Your task to perform on an android device: search for starred emails in the gmail app Image 0: 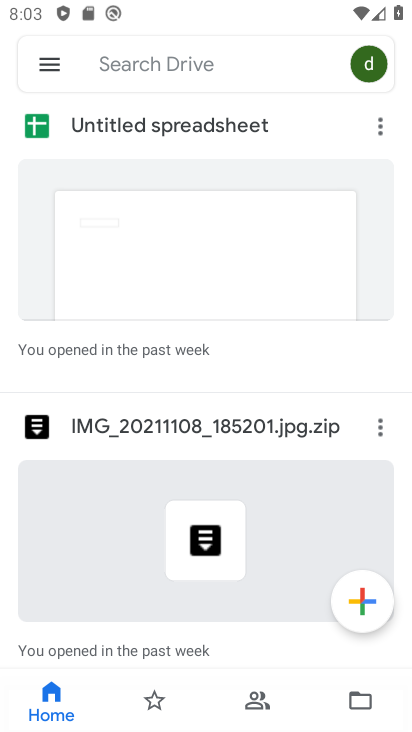
Step 0: press home button
Your task to perform on an android device: search for starred emails in the gmail app Image 1: 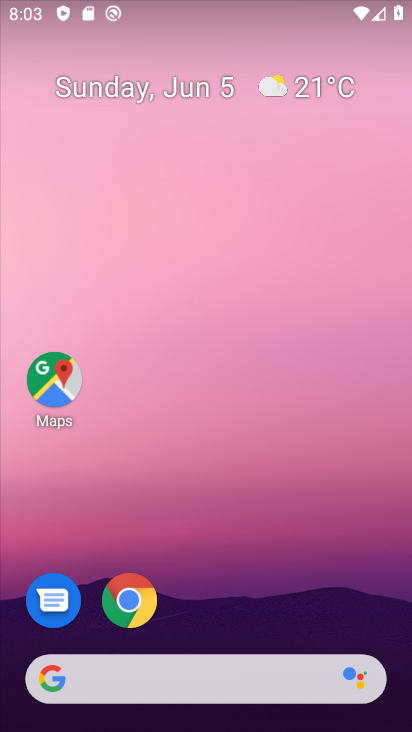
Step 1: drag from (265, 594) to (279, 0)
Your task to perform on an android device: search for starred emails in the gmail app Image 2: 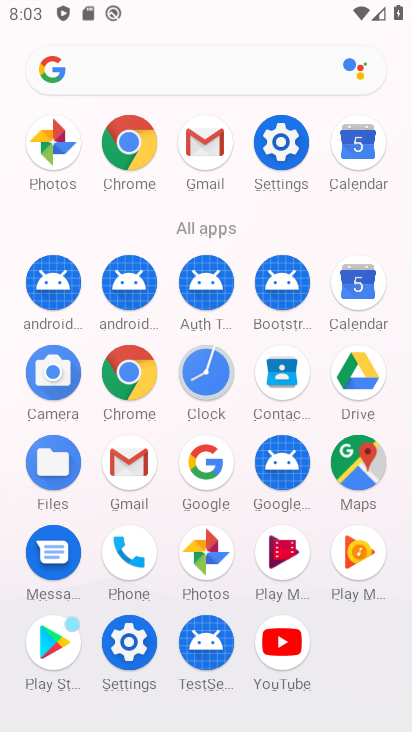
Step 2: click (130, 467)
Your task to perform on an android device: search for starred emails in the gmail app Image 3: 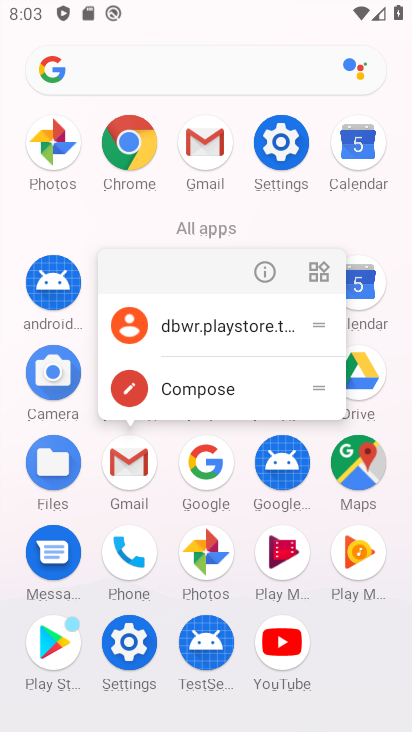
Step 3: click (125, 461)
Your task to perform on an android device: search for starred emails in the gmail app Image 4: 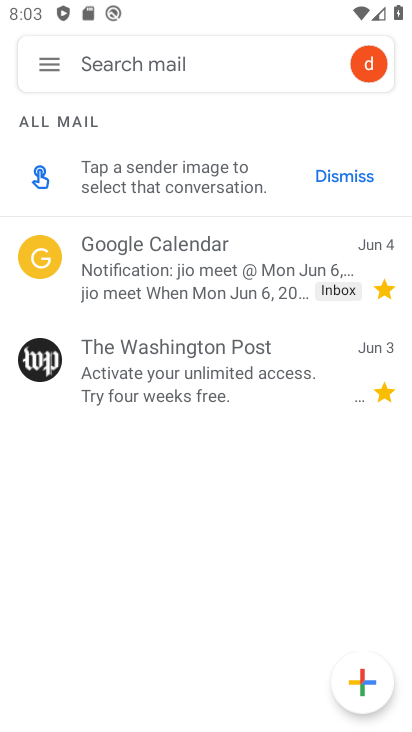
Step 4: click (47, 57)
Your task to perform on an android device: search for starred emails in the gmail app Image 5: 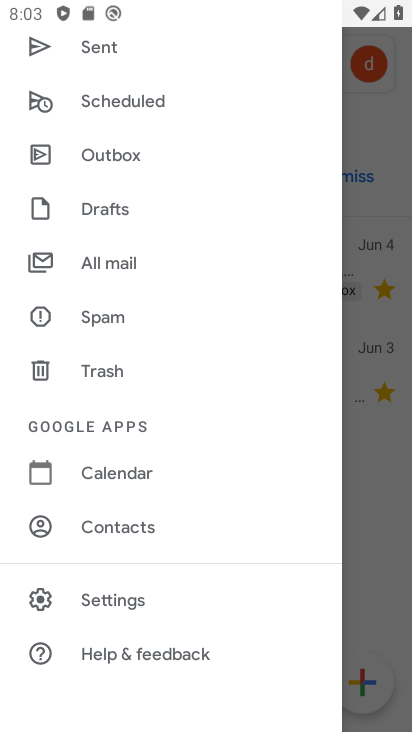
Step 5: drag from (141, 269) to (261, 645)
Your task to perform on an android device: search for starred emails in the gmail app Image 6: 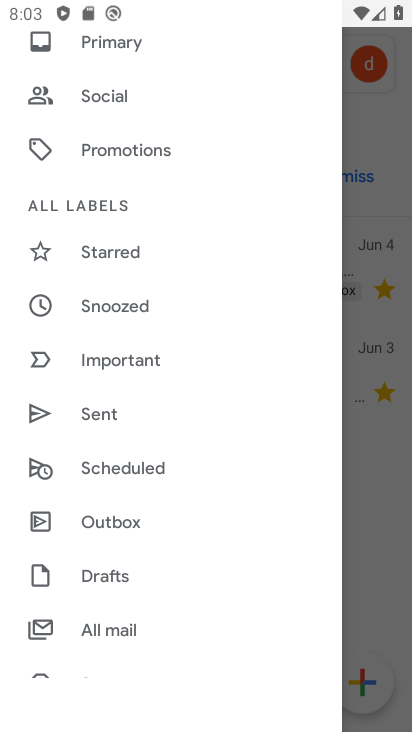
Step 6: click (120, 262)
Your task to perform on an android device: search for starred emails in the gmail app Image 7: 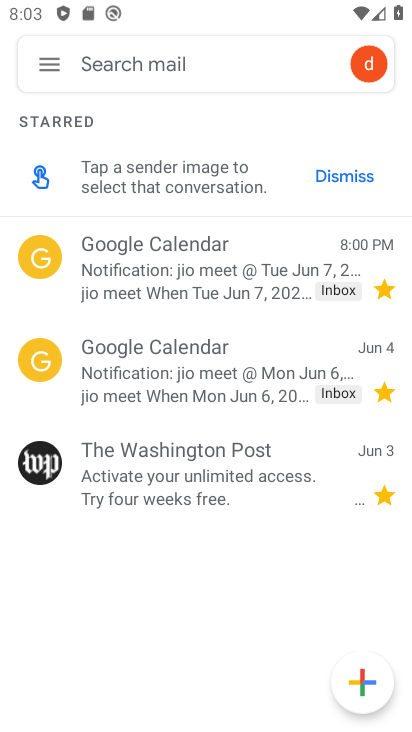
Step 7: task complete